Your task to perform on an android device: find snoozed emails in the gmail app Image 0: 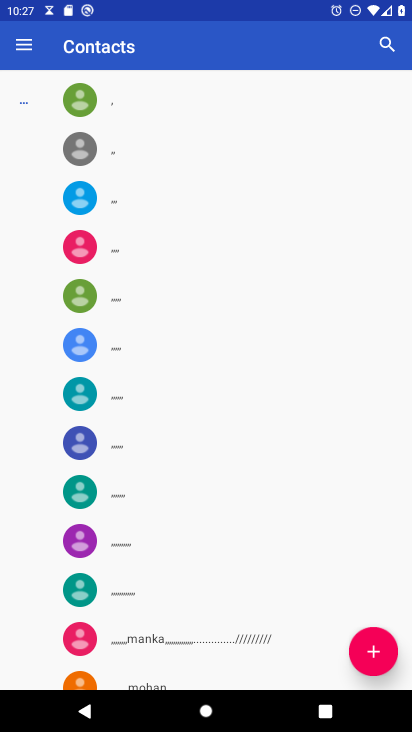
Step 0: press back button
Your task to perform on an android device: find snoozed emails in the gmail app Image 1: 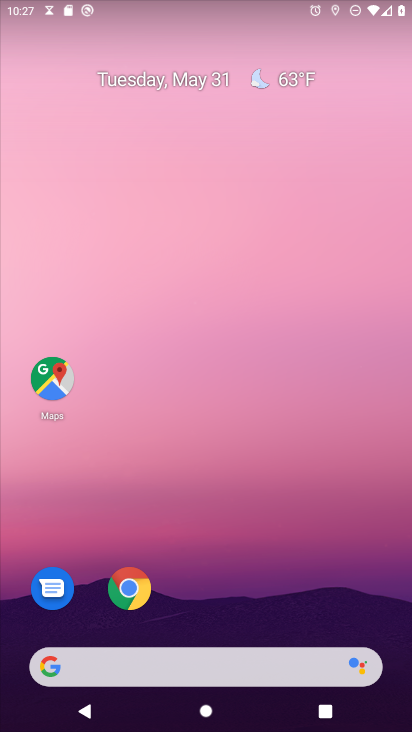
Step 1: drag from (269, 554) to (206, 59)
Your task to perform on an android device: find snoozed emails in the gmail app Image 2: 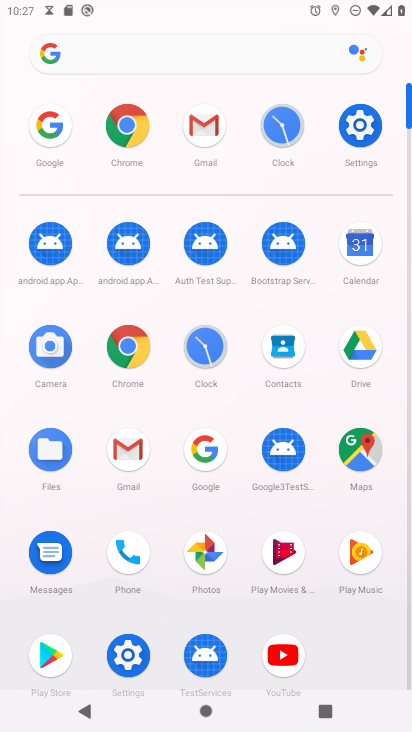
Step 2: click (202, 121)
Your task to perform on an android device: find snoozed emails in the gmail app Image 3: 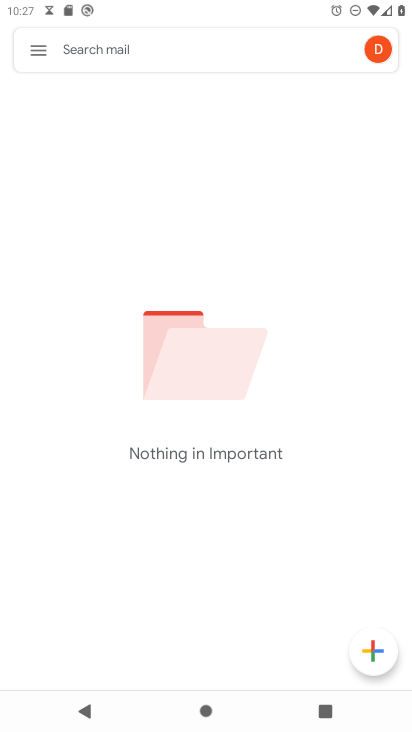
Step 3: click (37, 50)
Your task to perform on an android device: find snoozed emails in the gmail app Image 4: 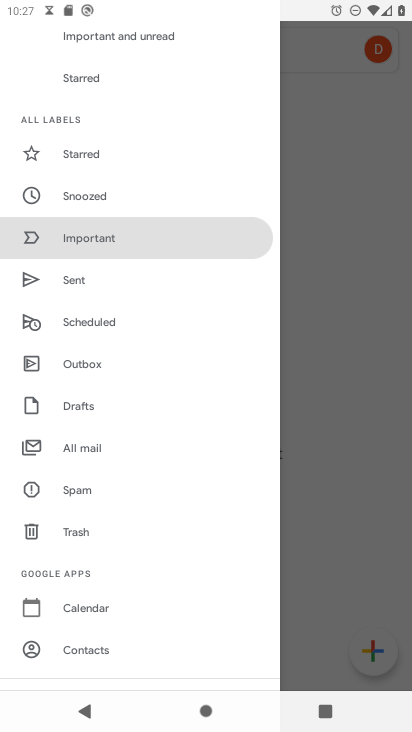
Step 4: click (108, 191)
Your task to perform on an android device: find snoozed emails in the gmail app Image 5: 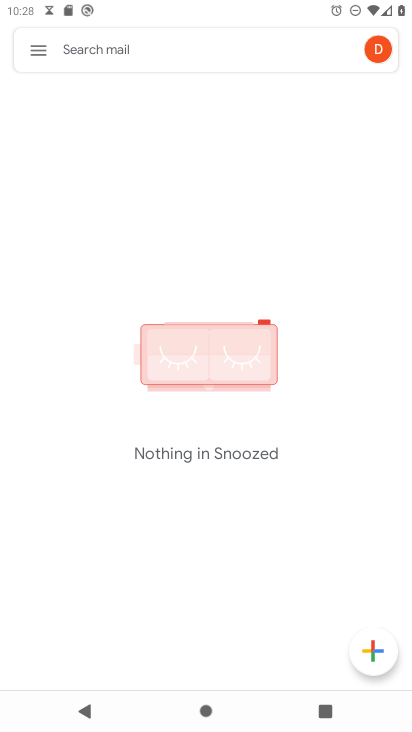
Step 5: click (44, 53)
Your task to perform on an android device: find snoozed emails in the gmail app Image 6: 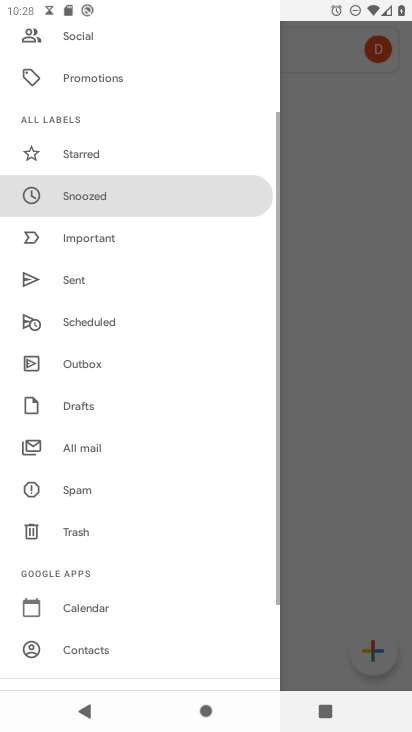
Step 6: drag from (171, 140) to (149, 346)
Your task to perform on an android device: find snoozed emails in the gmail app Image 7: 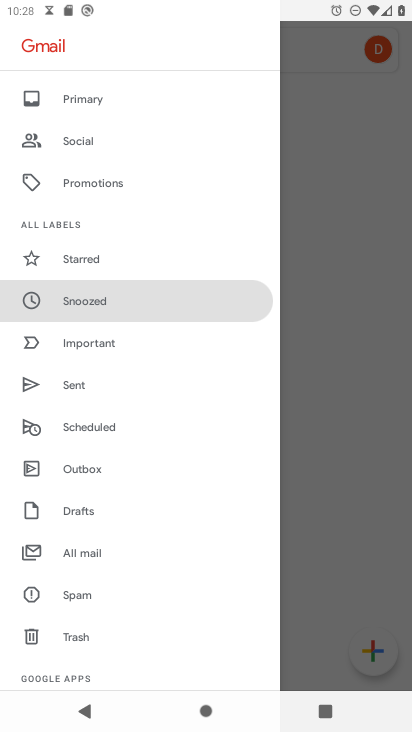
Step 7: click (100, 104)
Your task to perform on an android device: find snoozed emails in the gmail app Image 8: 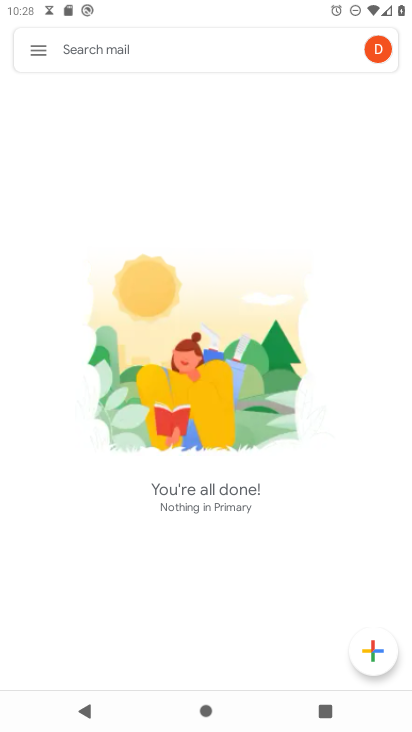
Step 8: task complete